Your task to perform on an android device: check battery use Image 0: 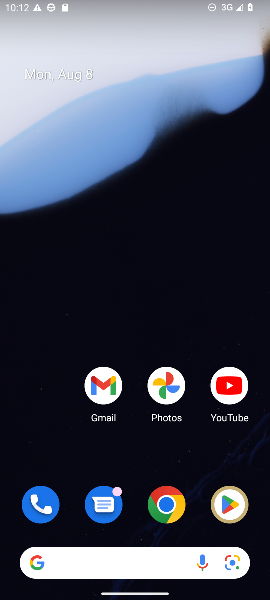
Step 0: drag from (137, 256) to (144, 76)
Your task to perform on an android device: check battery use Image 1: 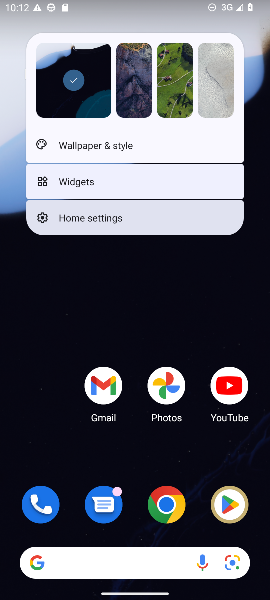
Step 1: click (158, 458)
Your task to perform on an android device: check battery use Image 2: 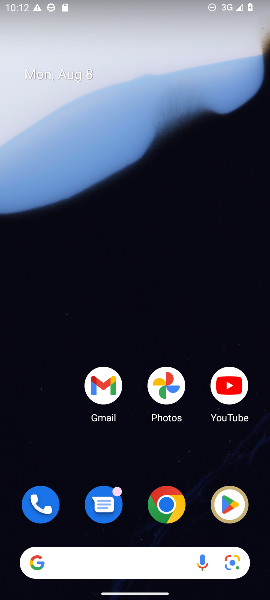
Step 2: drag from (138, 438) to (111, 30)
Your task to perform on an android device: check battery use Image 3: 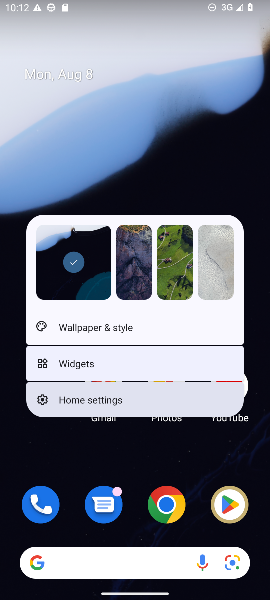
Step 3: drag from (135, 8) to (130, 116)
Your task to perform on an android device: check battery use Image 4: 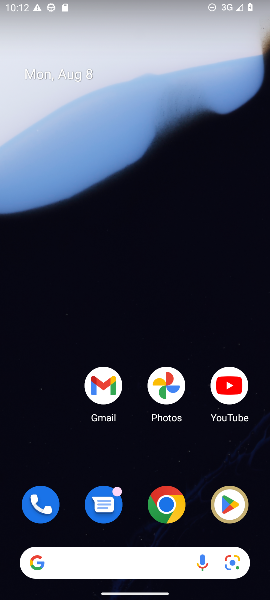
Step 4: drag from (125, 472) to (123, 115)
Your task to perform on an android device: check battery use Image 5: 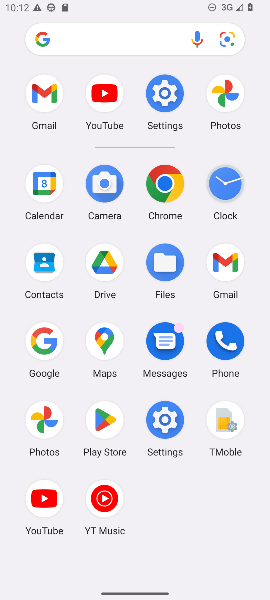
Step 5: click (216, 184)
Your task to perform on an android device: check battery use Image 6: 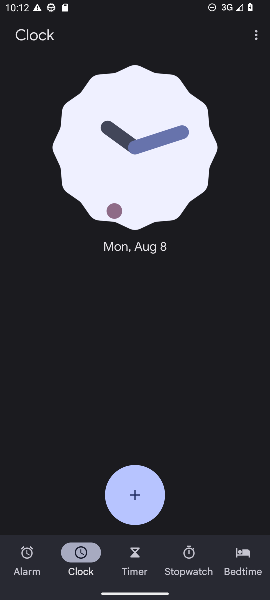
Step 6: press back button
Your task to perform on an android device: check battery use Image 7: 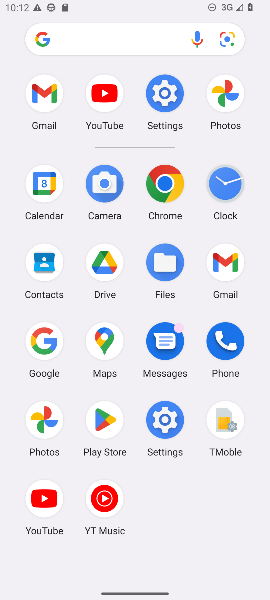
Step 7: click (166, 421)
Your task to perform on an android device: check battery use Image 8: 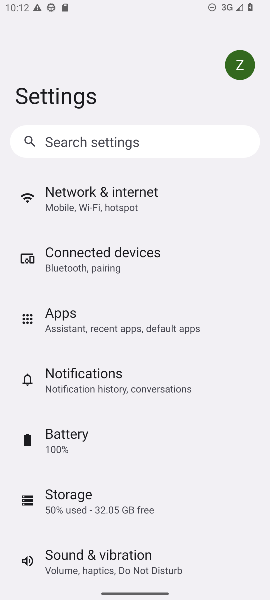
Step 8: click (81, 437)
Your task to perform on an android device: check battery use Image 9: 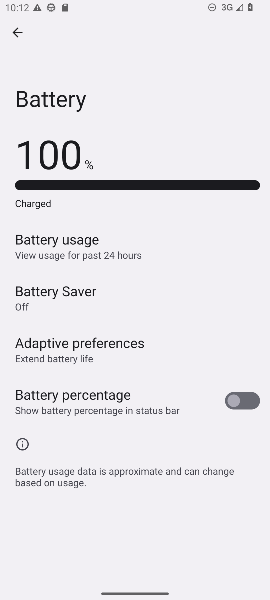
Step 9: click (123, 241)
Your task to perform on an android device: check battery use Image 10: 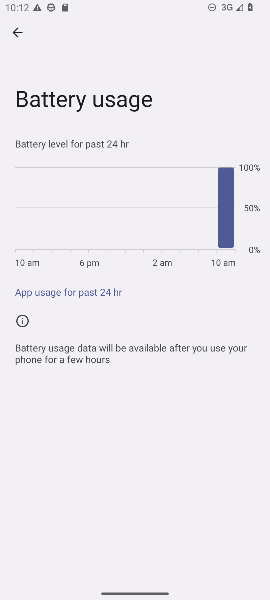
Step 10: task complete